Your task to perform on an android device: check out phone information Image 0: 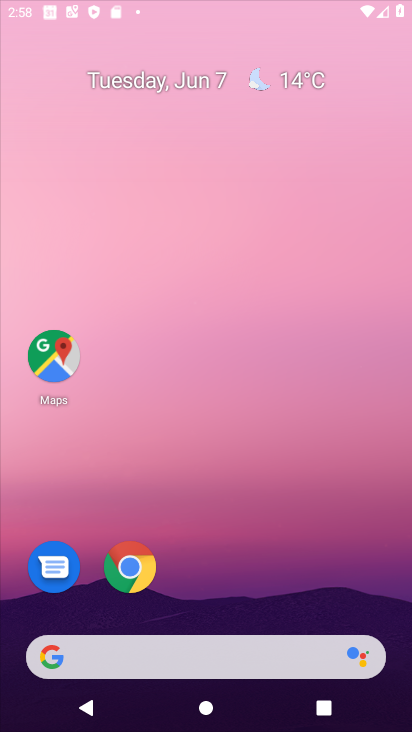
Step 0: click (145, 552)
Your task to perform on an android device: check out phone information Image 1: 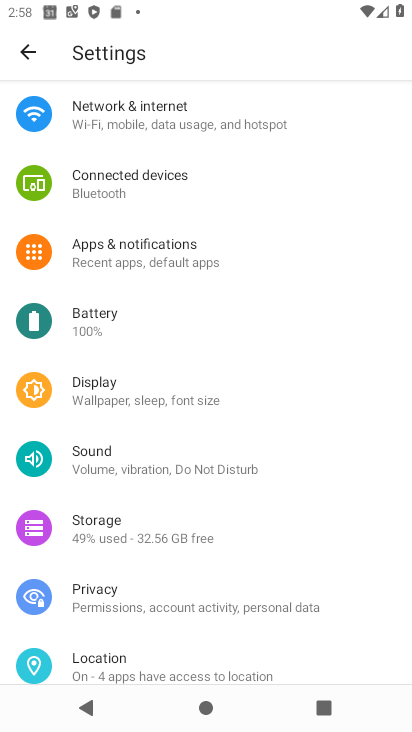
Step 1: drag from (231, 633) to (258, 275)
Your task to perform on an android device: check out phone information Image 2: 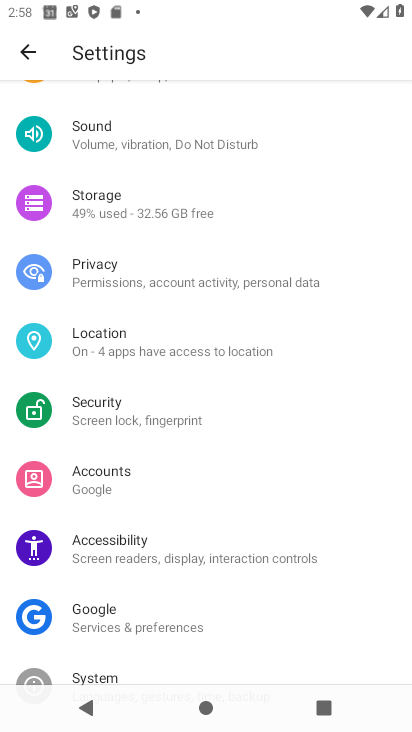
Step 2: drag from (215, 507) to (214, 336)
Your task to perform on an android device: check out phone information Image 3: 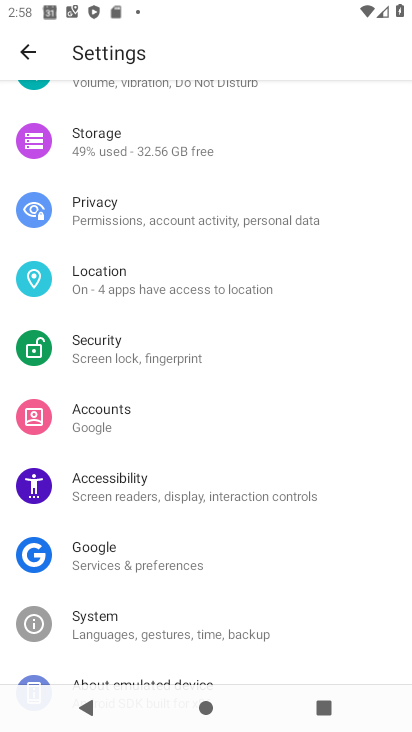
Step 3: drag from (199, 576) to (222, 311)
Your task to perform on an android device: check out phone information Image 4: 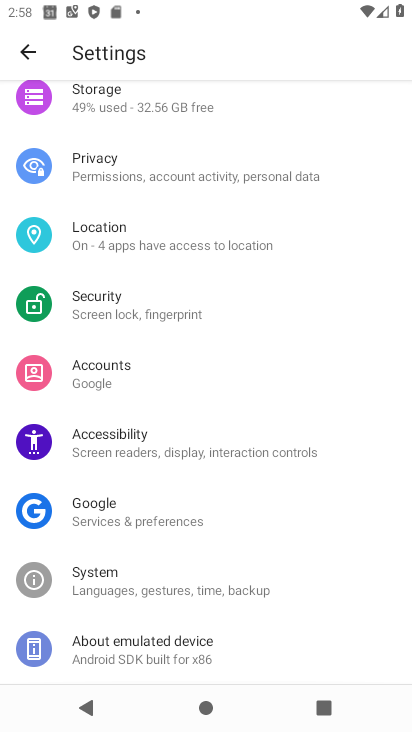
Step 4: click (162, 633)
Your task to perform on an android device: check out phone information Image 5: 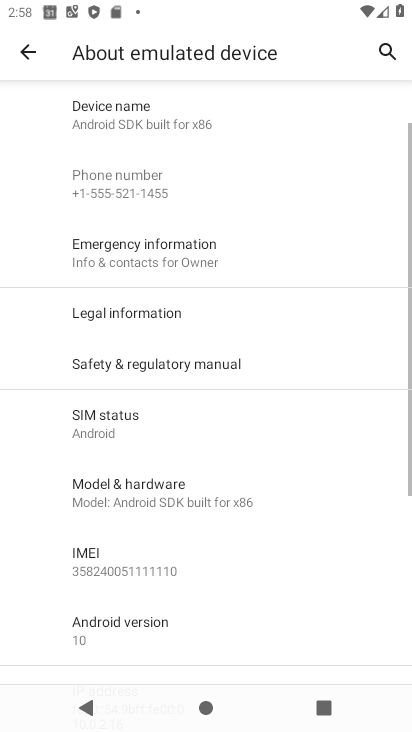
Step 5: task complete